Your task to perform on an android device: toggle translation in the chrome app Image 0: 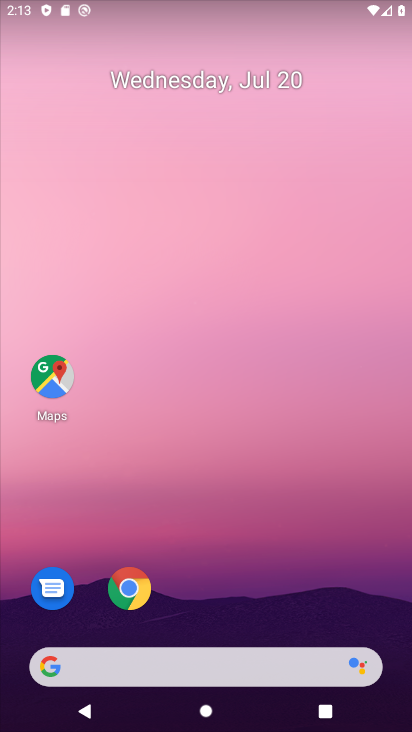
Step 0: drag from (233, 643) to (230, 227)
Your task to perform on an android device: toggle translation in the chrome app Image 1: 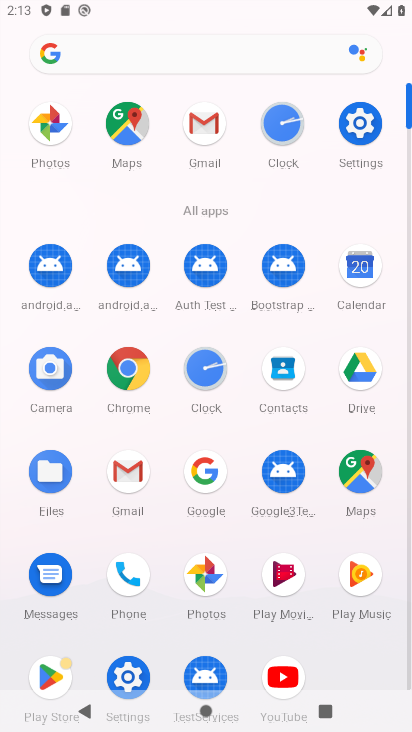
Step 1: drag from (138, 633) to (201, 274)
Your task to perform on an android device: toggle translation in the chrome app Image 2: 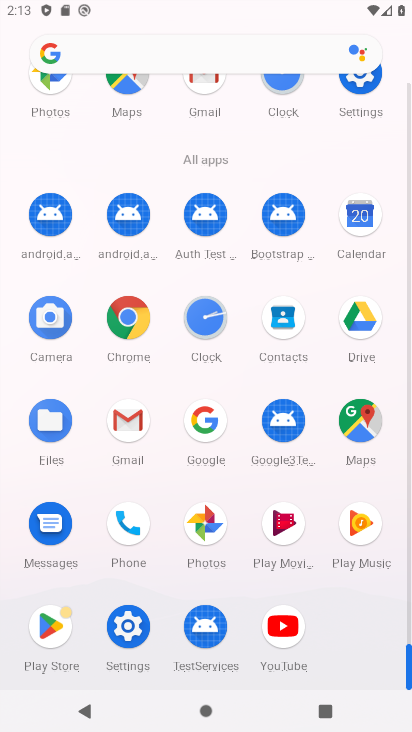
Step 2: click (129, 312)
Your task to perform on an android device: toggle translation in the chrome app Image 3: 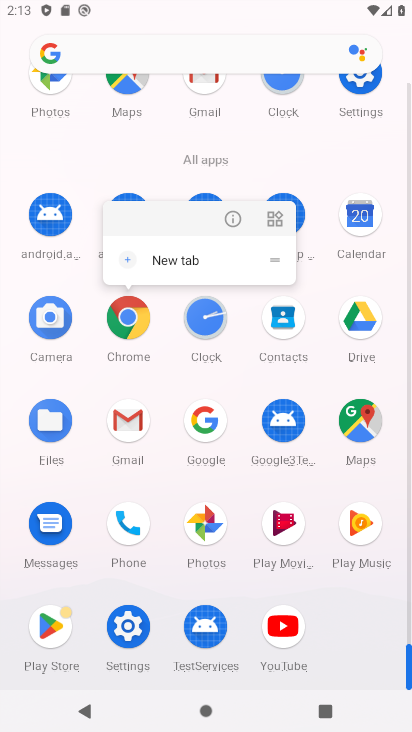
Step 3: click (242, 214)
Your task to perform on an android device: toggle translation in the chrome app Image 4: 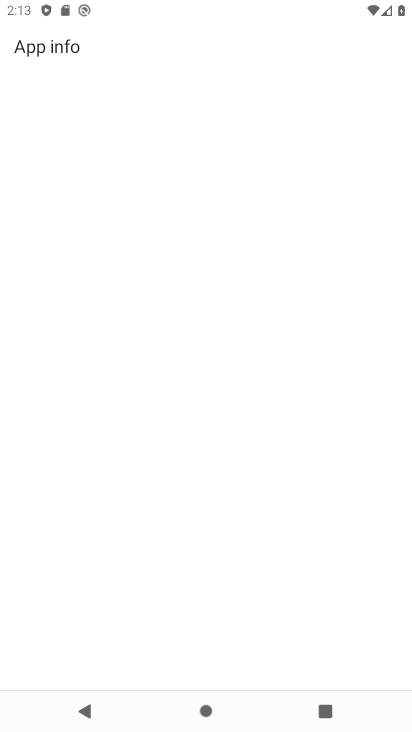
Step 4: drag from (192, 553) to (204, 220)
Your task to perform on an android device: toggle translation in the chrome app Image 5: 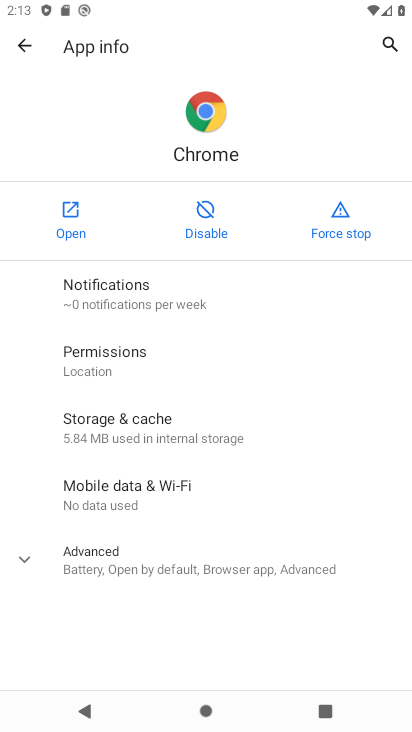
Step 5: click (73, 227)
Your task to perform on an android device: toggle translation in the chrome app Image 6: 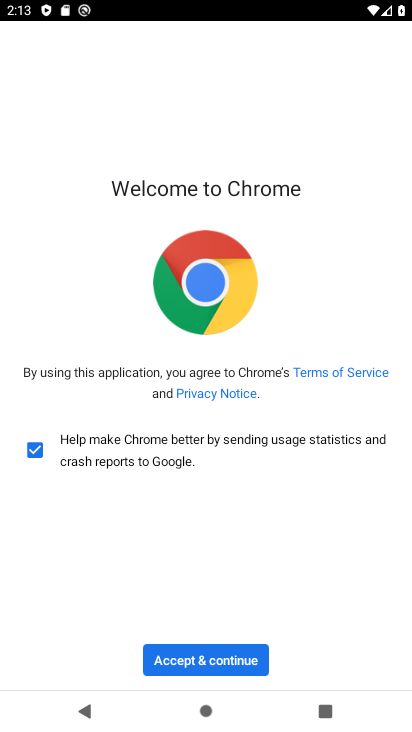
Step 6: click (194, 653)
Your task to perform on an android device: toggle translation in the chrome app Image 7: 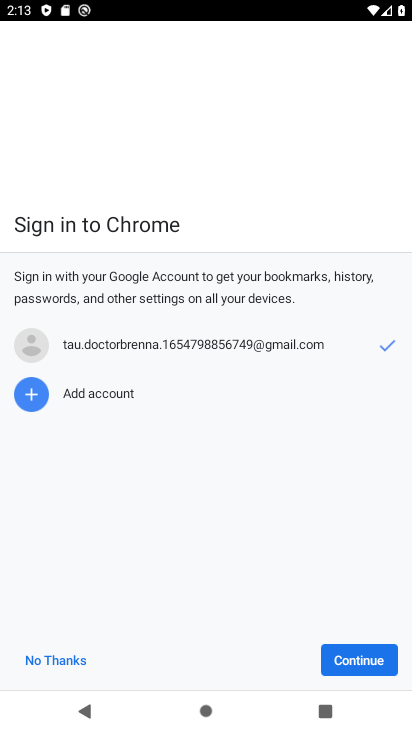
Step 7: drag from (228, 640) to (286, 216)
Your task to perform on an android device: toggle translation in the chrome app Image 8: 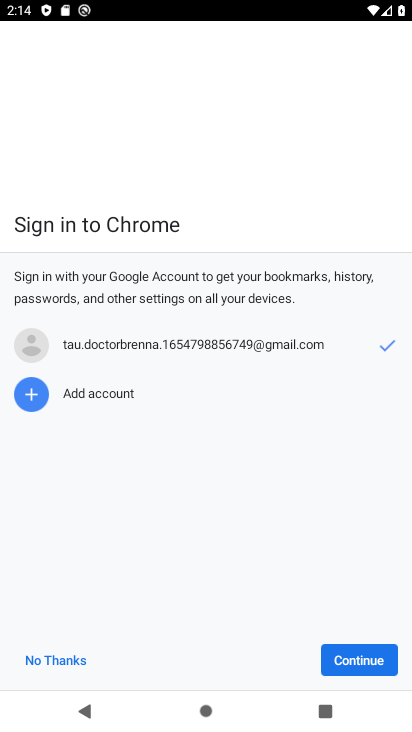
Step 8: click (358, 669)
Your task to perform on an android device: toggle translation in the chrome app Image 9: 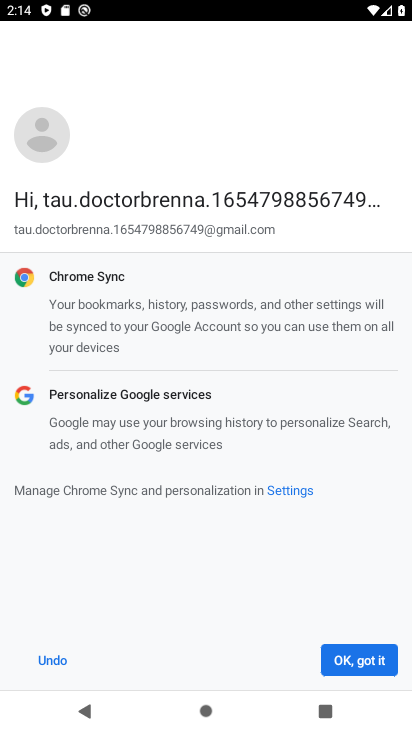
Step 9: click (355, 665)
Your task to perform on an android device: toggle translation in the chrome app Image 10: 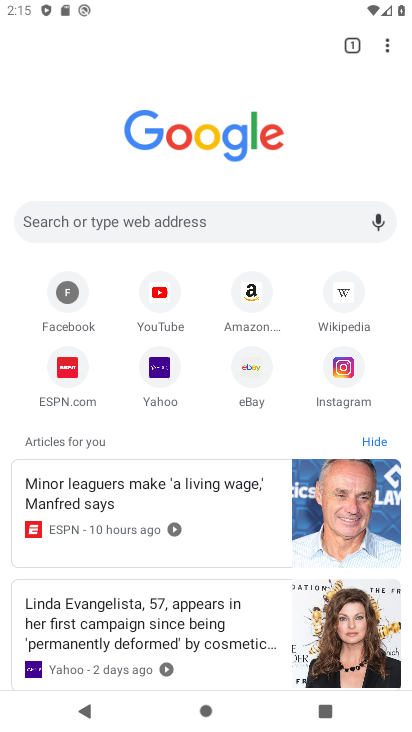
Step 10: drag from (387, 41) to (239, 384)
Your task to perform on an android device: toggle translation in the chrome app Image 11: 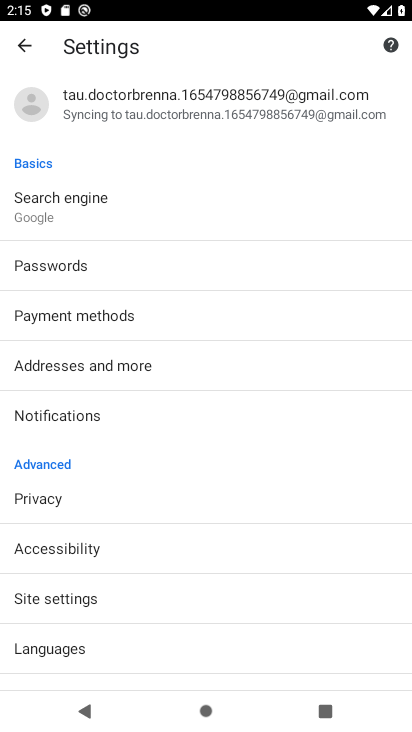
Step 11: drag from (162, 599) to (225, 318)
Your task to perform on an android device: toggle translation in the chrome app Image 12: 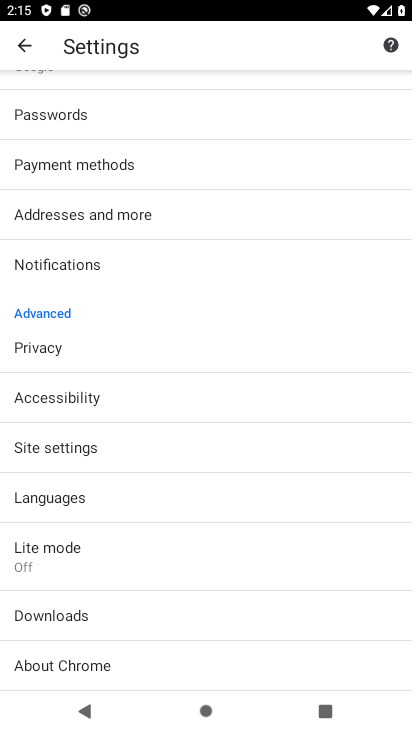
Step 12: click (109, 508)
Your task to perform on an android device: toggle translation in the chrome app Image 13: 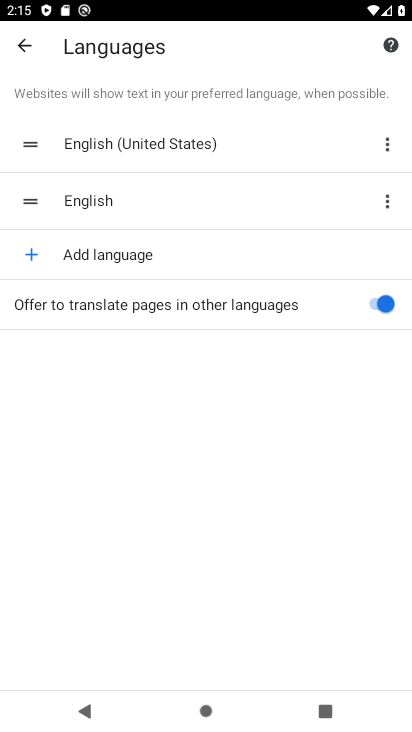
Step 13: click (298, 306)
Your task to perform on an android device: toggle translation in the chrome app Image 14: 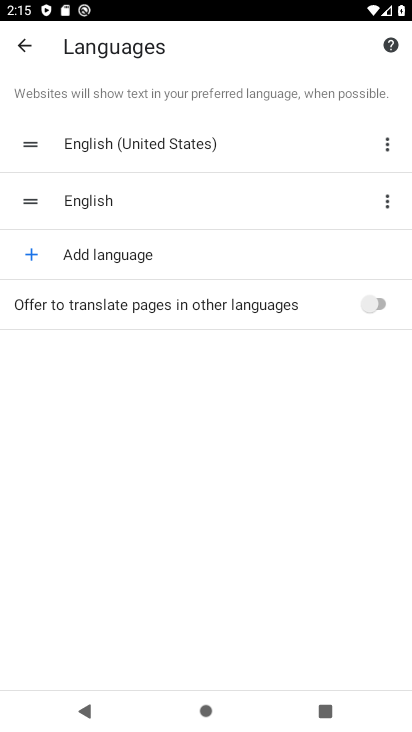
Step 14: task complete